Your task to perform on an android device: Find coffee shops on Maps Image 0: 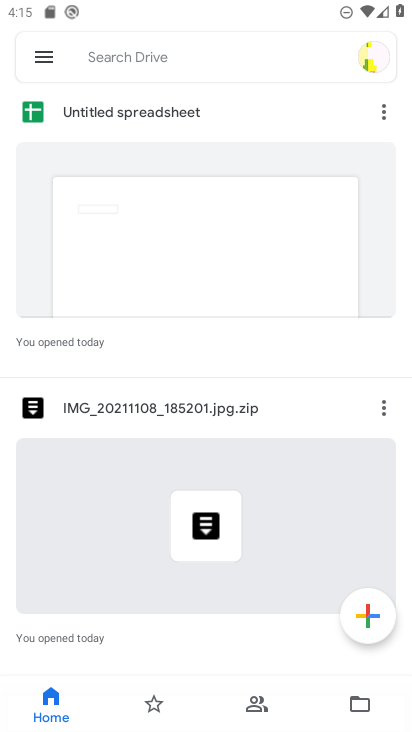
Step 0: press home button
Your task to perform on an android device: Find coffee shops on Maps Image 1: 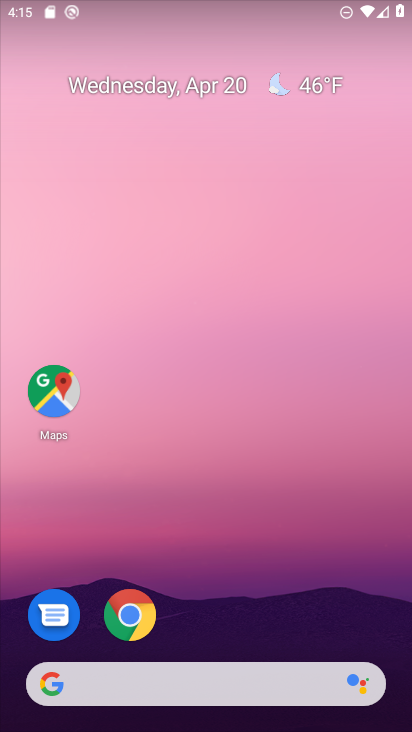
Step 1: drag from (371, 425) to (411, 160)
Your task to perform on an android device: Find coffee shops on Maps Image 2: 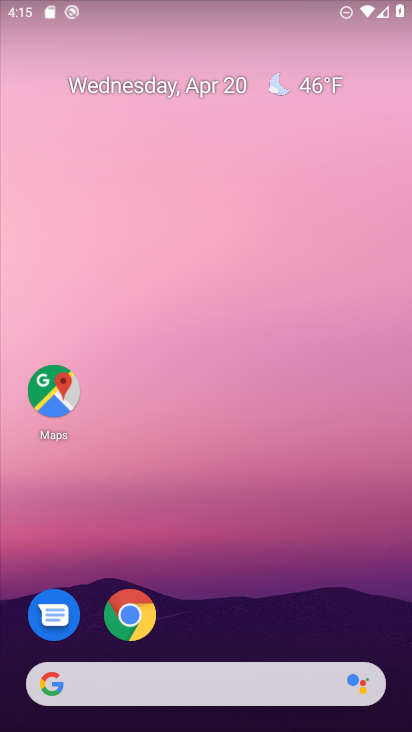
Step 2: drag from (359, 537) to (408, 205)
Your task to perform on an android device: Find coffee shops on Maps Image 3: 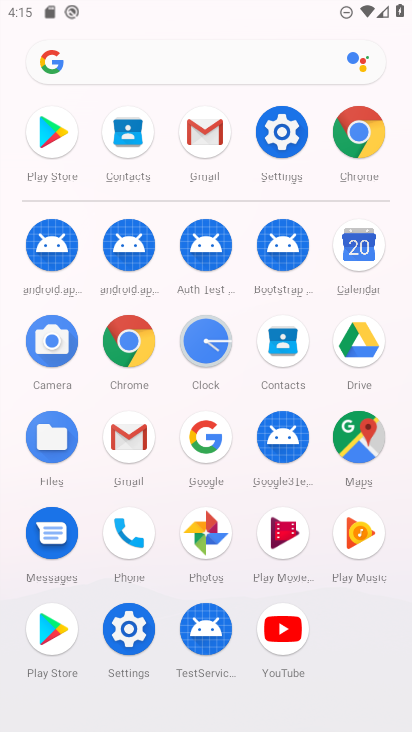
Step 3: click (348, 436)
Your task to perform on an android device: Find coffee shops on Maps Image 4: 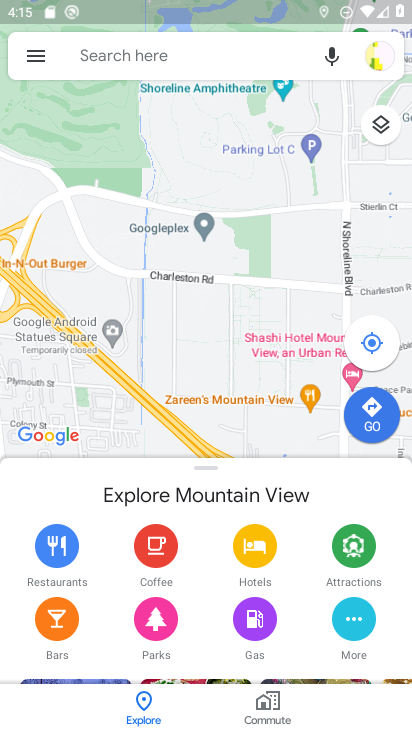
Step 4: click (191, 46)
Your task to perform on an android device: Find coffee shops on Maps Image 5: 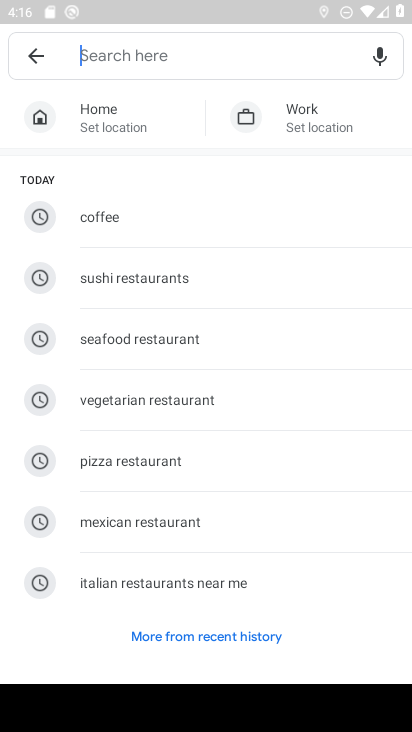
Step 5: click (96, 222)
Your task to perform on an android device: Find coffee shops on Maps Image 6: 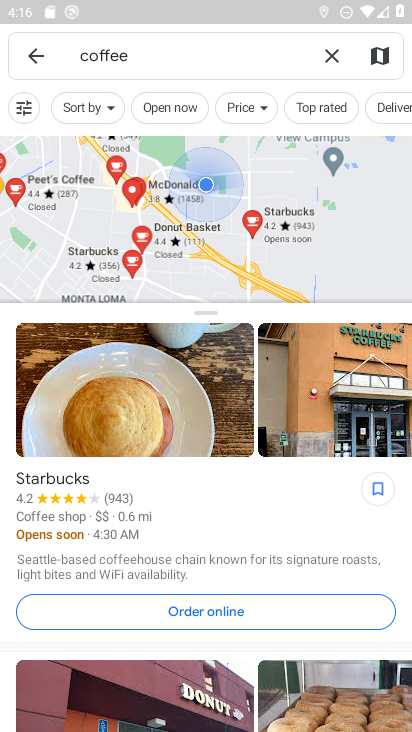
Step 6: task complete